Your task to perform on an android device: Open Google Chrome Image 0: 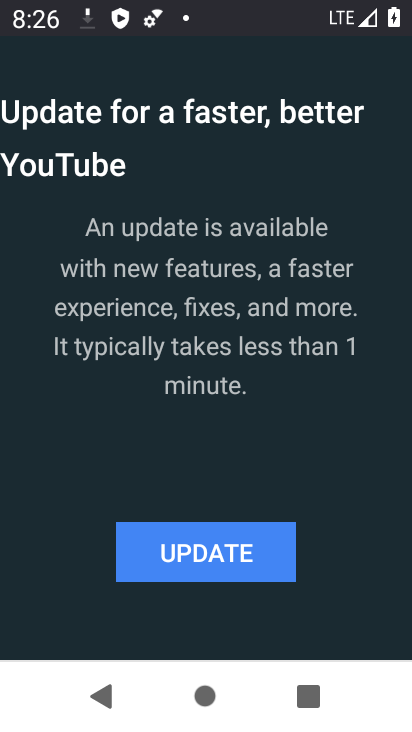
Step 0: press back button
Your task to perform on an android device: Open Google Chrome Image 1: 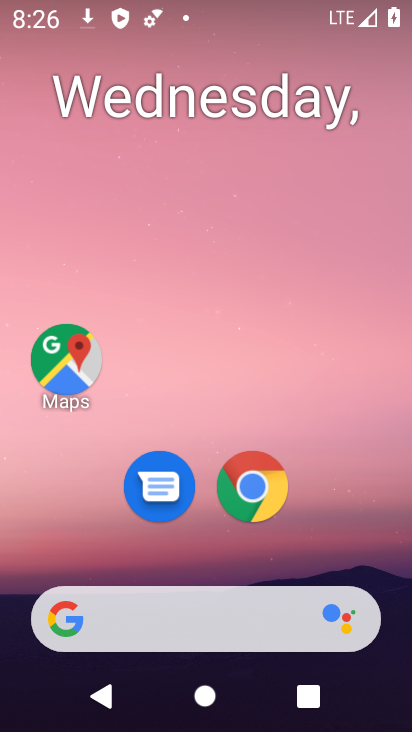
Step 1: click (270, 483)
Your task to perform on an android device: Open Google Chrome Image 2: 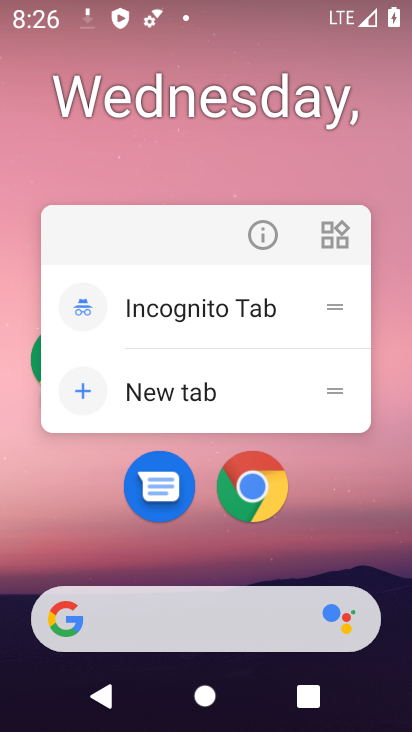
Step 2: click (212, 453)
Your task to perform on an android device: Open Google Chrome Image 3: 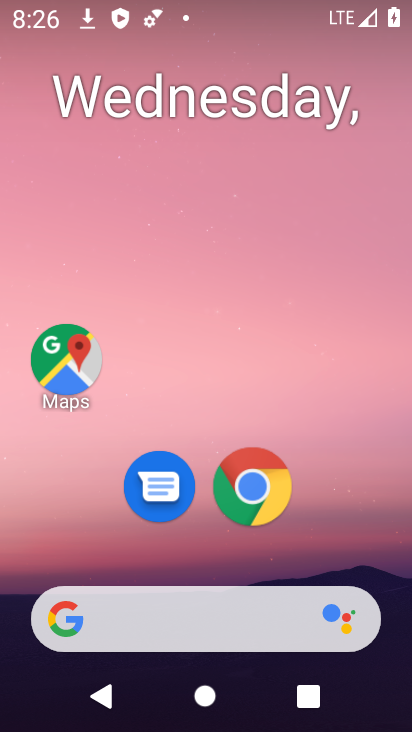
Step 3: click (224, 469)
Your task to perform on an android device: Open Google Chrome Image 4: 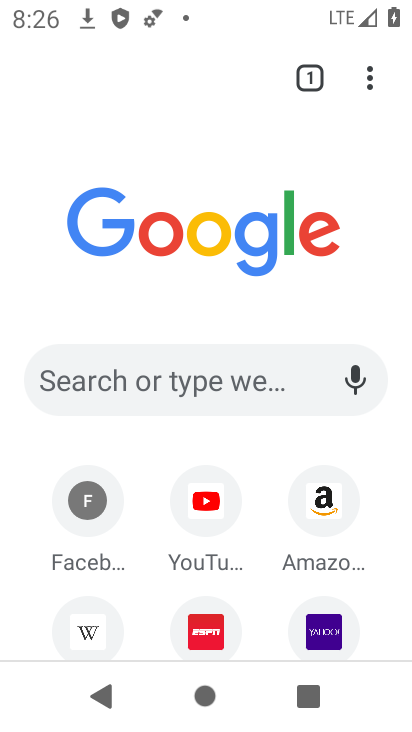
Step 4: task complete